Your task to perform on an android device: Go to Google Image 0: 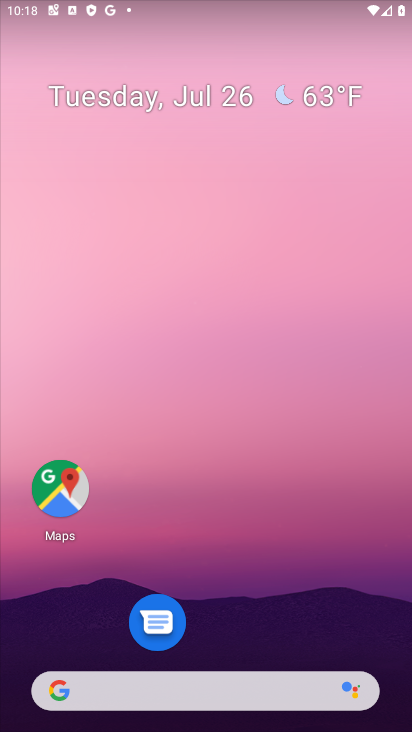
Step 0: drag from (314, 508) to (409, 0)
Your task to perform on an android device: Go to Google Image 1: 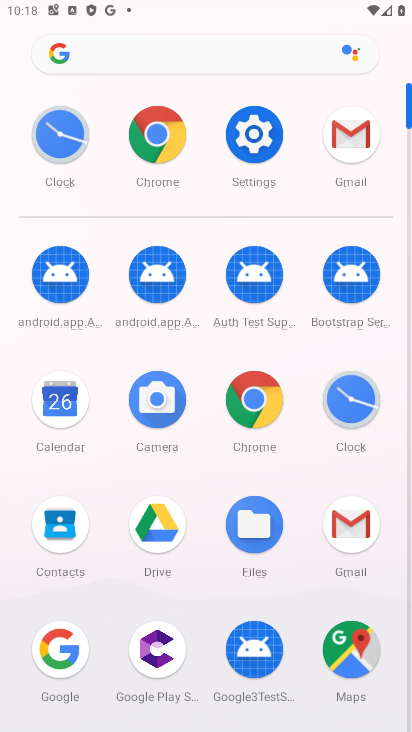
Step 1: click (59, 652)
Your task to perform on an android device: Go to Google Image 2: 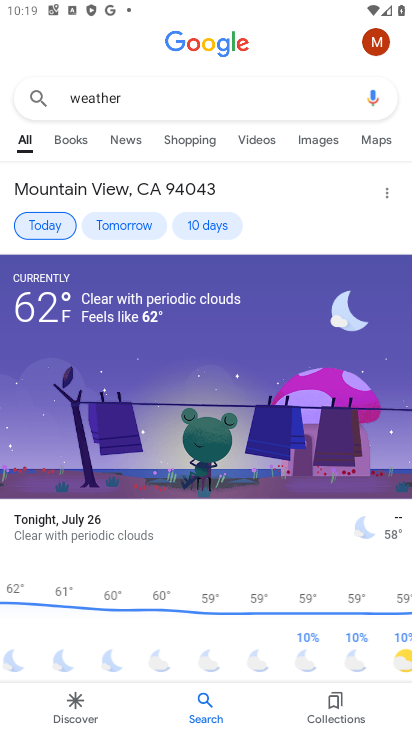
Step 2: task complete